Your task to perform on an android device: toggle location history Image 0: 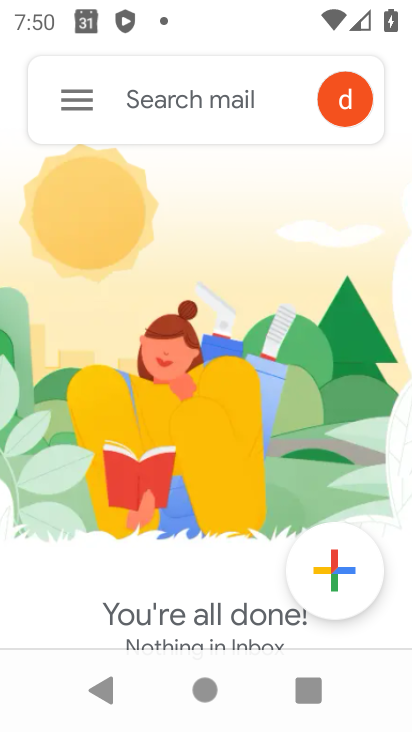
Step 0: press home button
Your task to perform on an android device: toggle location history Image 1: 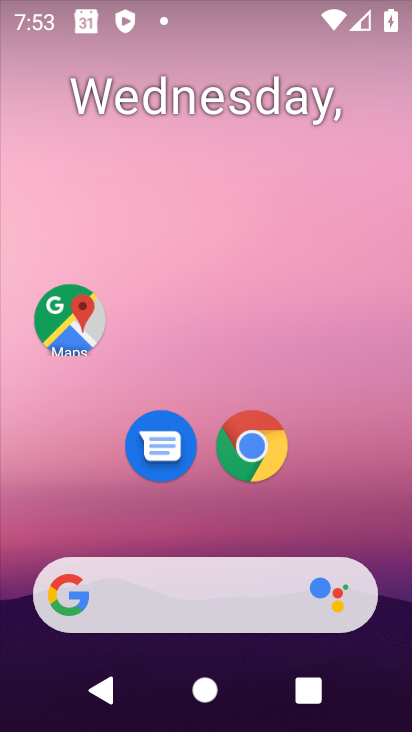
Step 1: drag from (316, 540) to (332, 0)
Your task to perform on an android device: toggle location history Image 2: 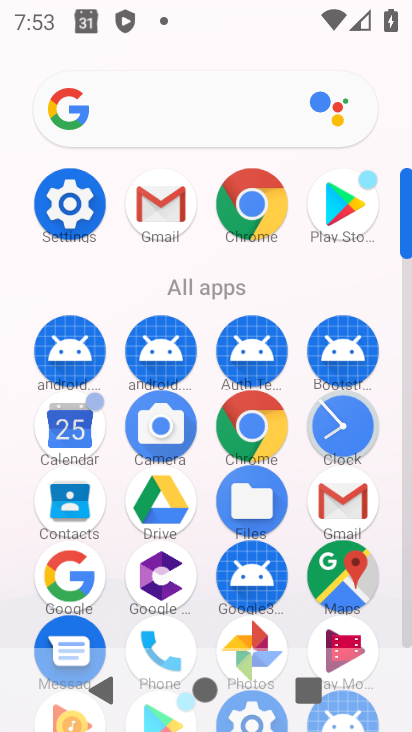
Step 2: click (81, 205)
Your task to perform on an android device: toggle location history Image 3: 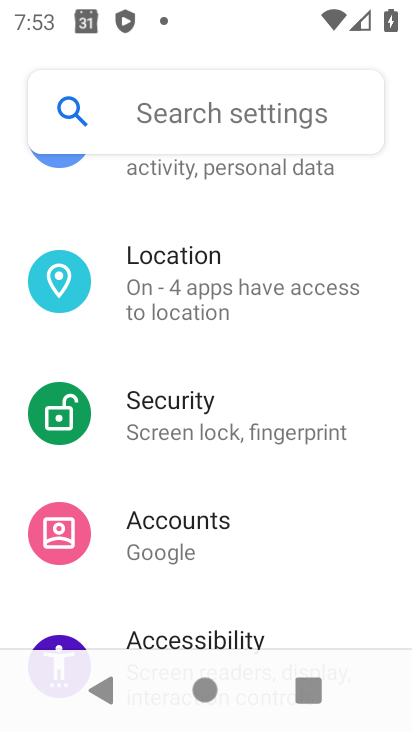
Step 3: drag from (249, 506) to (274, 196)
Your task to perform on an android device: toggle location history Image 4: 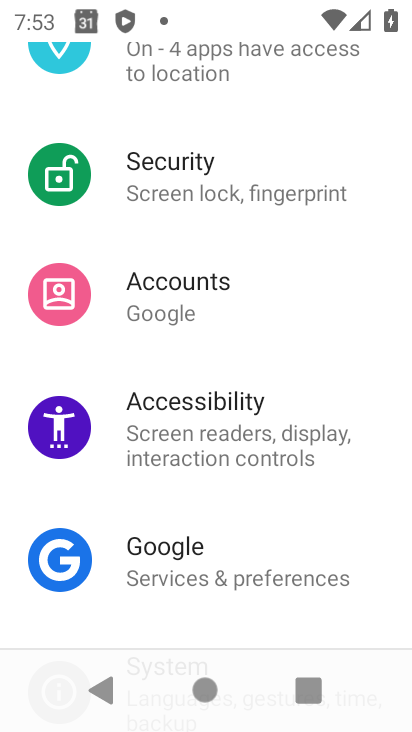
Step 4: drag from (245, 224) to (266, 443)
Your task to perform on an android device: toggle location history Image 5: 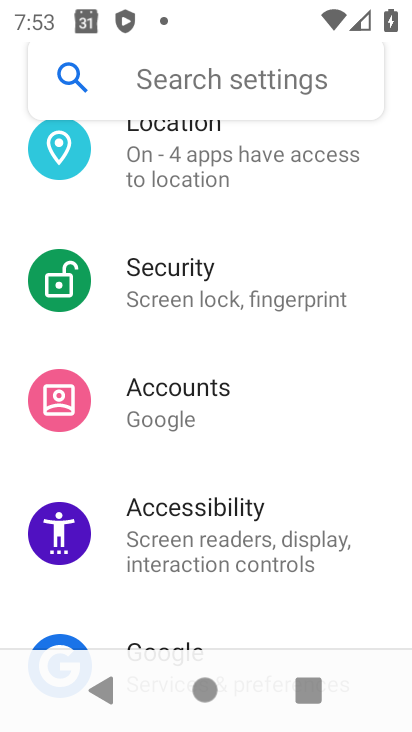
Step 5: click (233, 155)
Your task to perform on an android device: toggle location history Image 6: 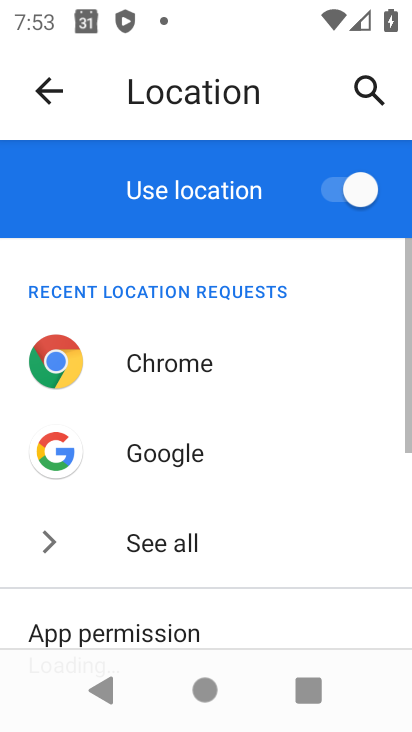
Step 6: drag from (263, 573) to (324, 204)
Your task to perform on an android device: toggle location history Image 7: 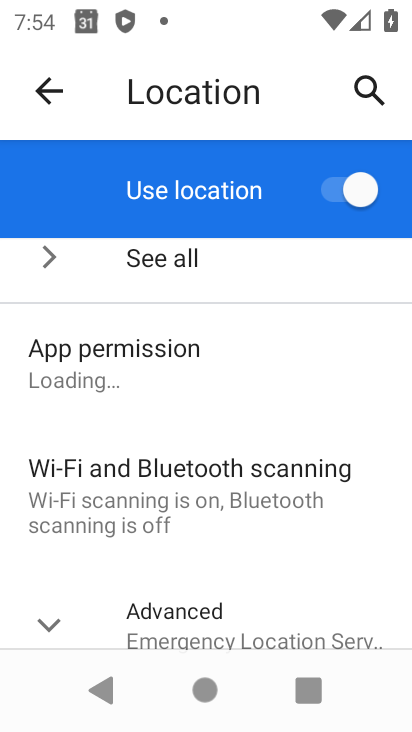
Step 7: click (241, 626)
Your task to perform on an android device: toggle location history Image 8: 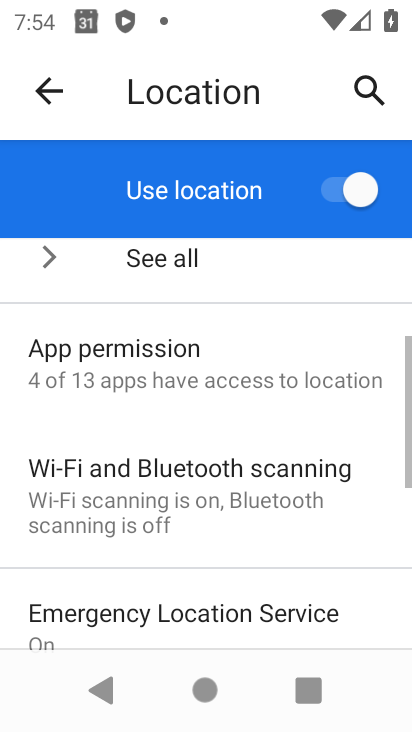
Step 8: drag from (232, 597) to (267, 265)
Your task to perform on an android device: toggle location history Image 9: 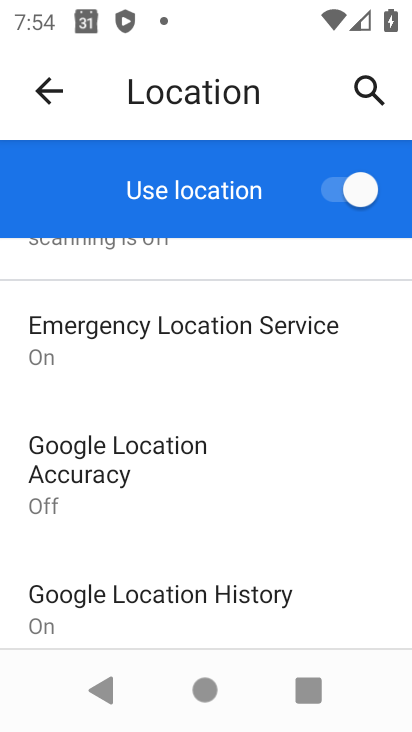
Step 9: click (202, 584)
Your task to perform on an android device: toggle location history Image 10: 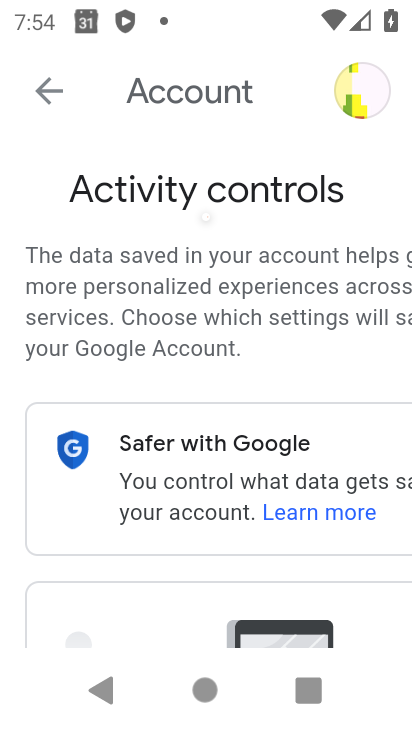
Step 10: drag from (209, 566) to (282, 230)
Your task to perform on an android device: toggle location history Image 11: 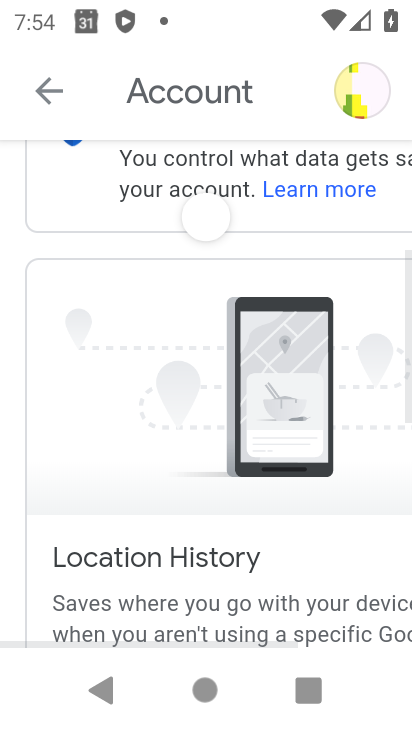
Step 11: drag from (261, 515) to (310, 185)
Your task to perform on an android device: toggle location history Image 12: 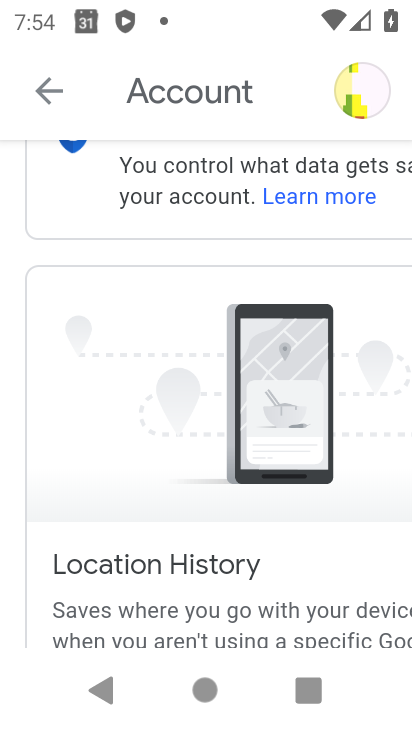
Step 12: drag from (307, 239) to (267, 518)
Your task to perform on an android device: toggle location history Image 13: 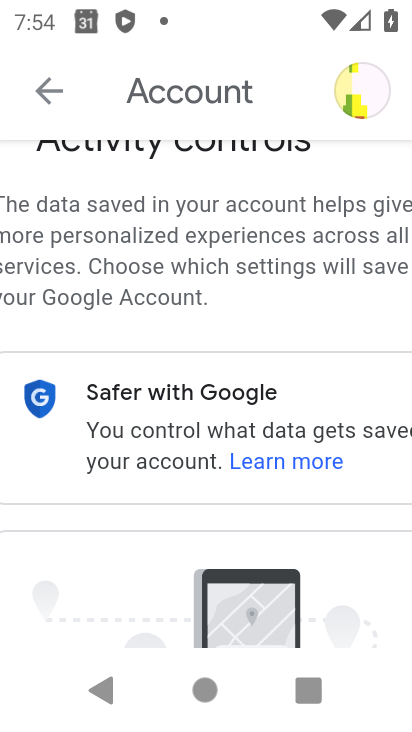
Step 13: drag from (315, 571) to (295, 218)
Your task to perform on an android device: toggle location history Image 14: 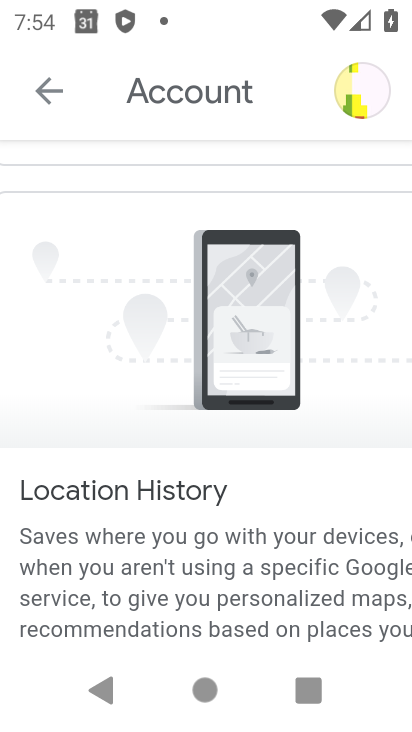
Step 14: drag from (308, 567) to (311, 174)
Your task to perform on an android device: toggle location history Image 15: 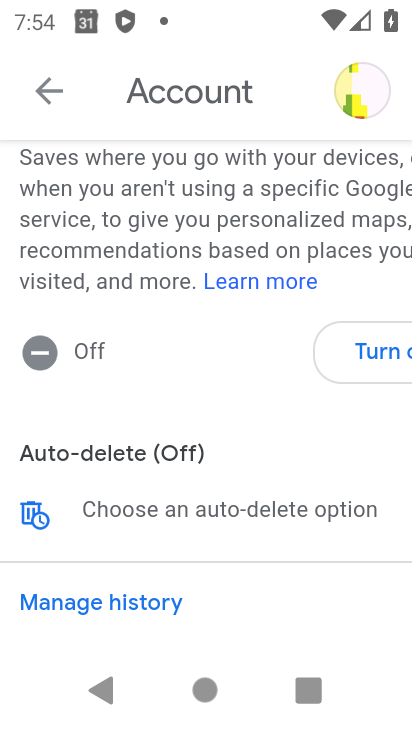
Step 15: click (390, 348)
Your task to perform on an android device: toggle location history Image 16: 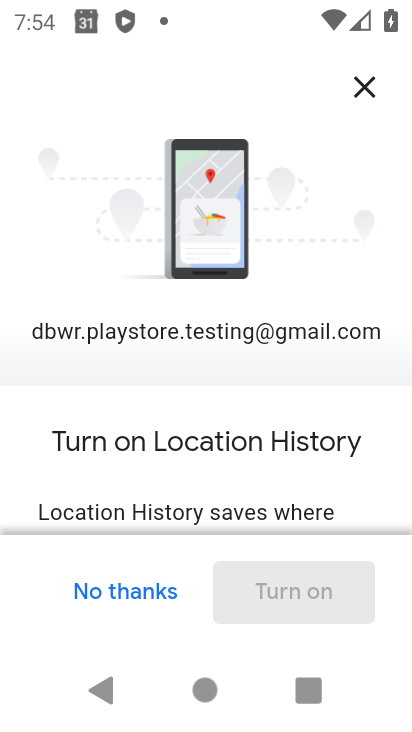
Step 16: drag from (346, 498) to (336, 142)
Your task to perform on an android device: toggle location history Image 17: 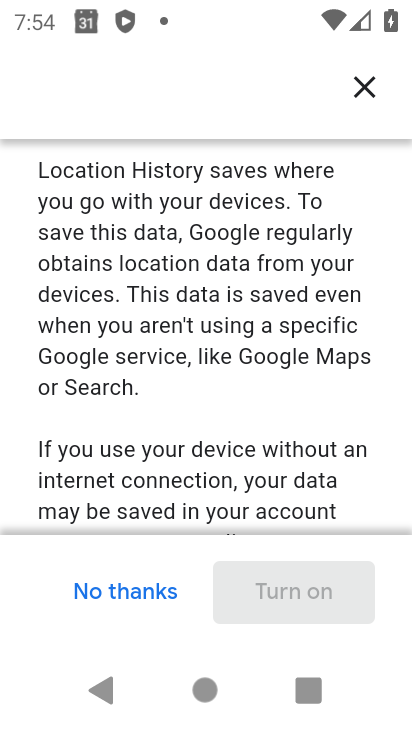
Step 17: drag from (352, 442) to (363, 141)
Your task to perform on an android device: toggle location history Image 18: 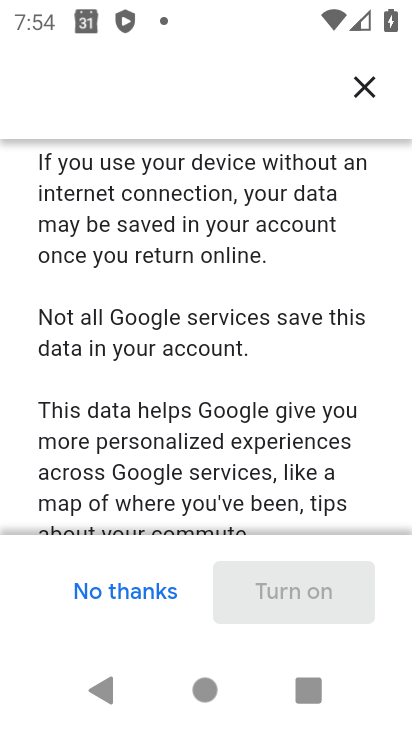
Step 18: drag from (314, 467) to (328, 176)
Your task to perform on an android device: toggle location history Image 19: 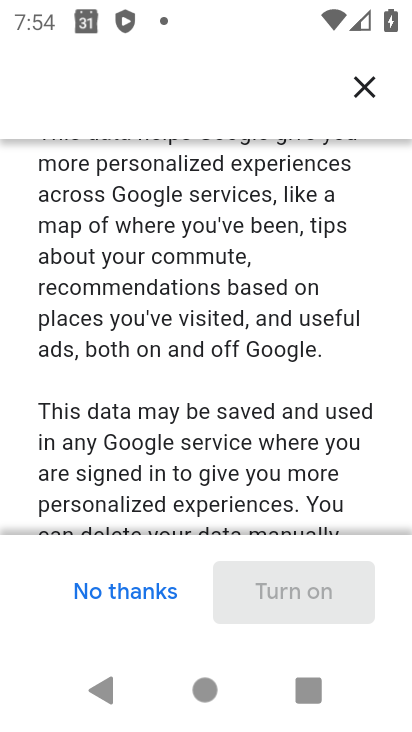
Step 19: drag from (319, 464) to (334, 164)
Your task to perform on an android device: toggle location history Image 20: 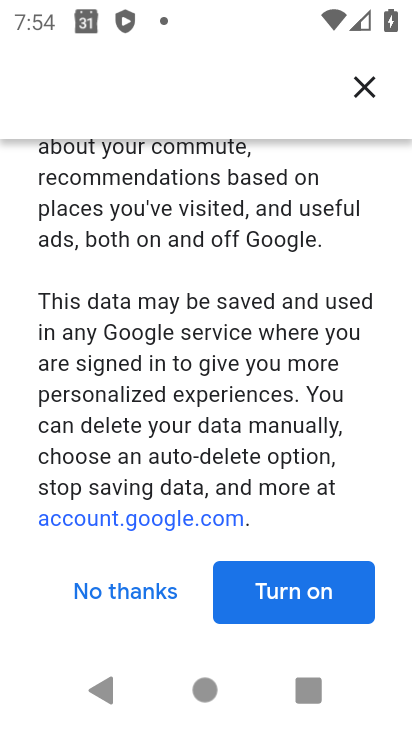
Step 20: drag from (328, 480) to (337, 198)
Your task to perform on an android device: toggle location history Image 21: 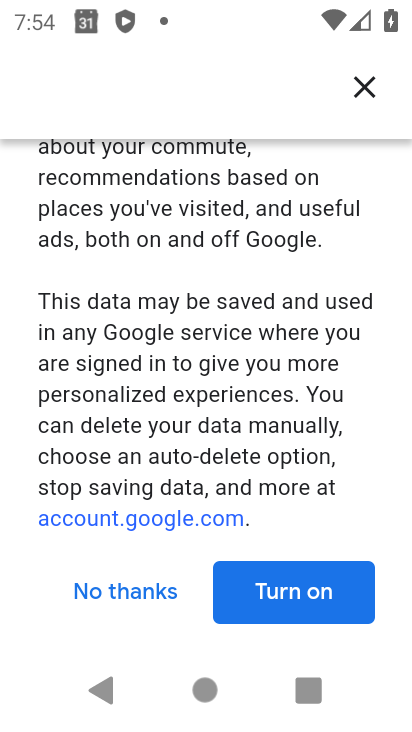
Step 21: click (315, 598)
Your task to perform on an android device: toggle location history Image 22: 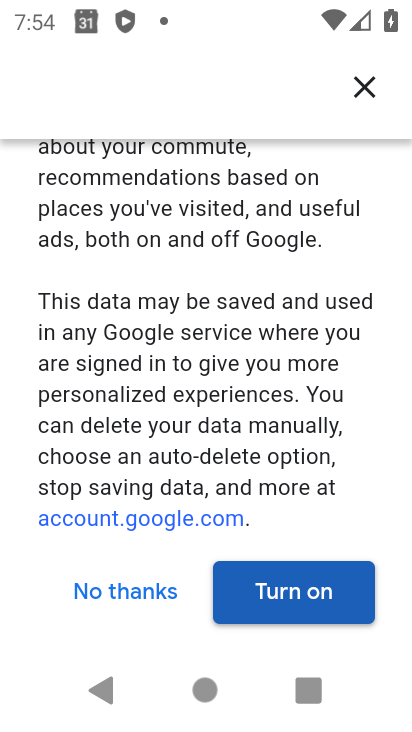
Step 22: click (315, 598)
Your task to perform on an android device: toggle location history Image 23: 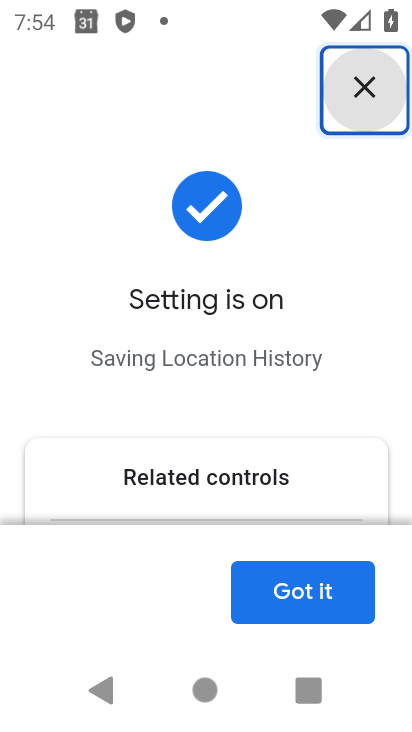
Step 23: task complete